Your task to perform on an android device: uninstall "Spotify: Music and Podcasts" Image 0: 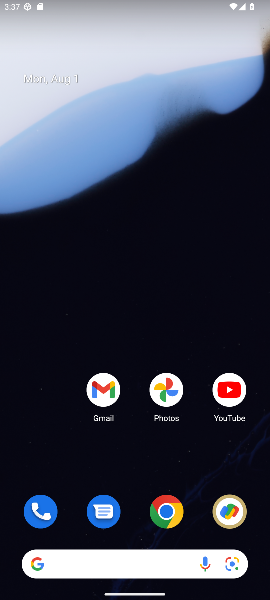
Step 0: drag from (136, 476) to (127, 133)
Your task to perform on an android device: uninstall "Spotify: Music and Podcasts" Image 1: 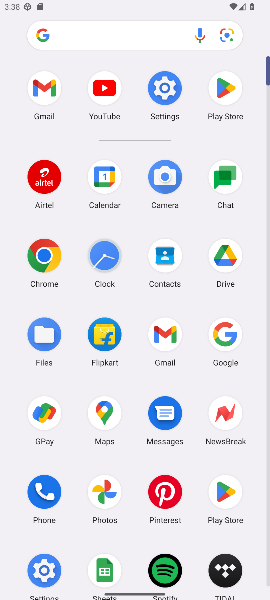
Step 1: click (227, 115)
Your task to perform on an android device: uninstall "Spotify: Music and Podcasts" Image 2: 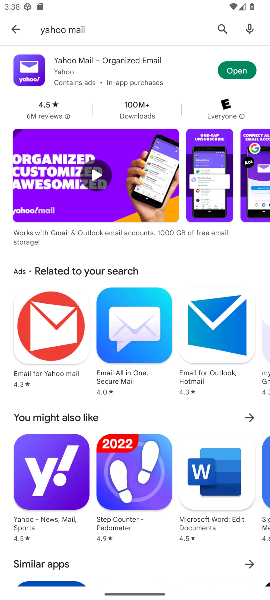
Step 2: click (15, 28)
Your task to perform on an android device: uninstall "Spotify: Music and Podcasts" Image 3: 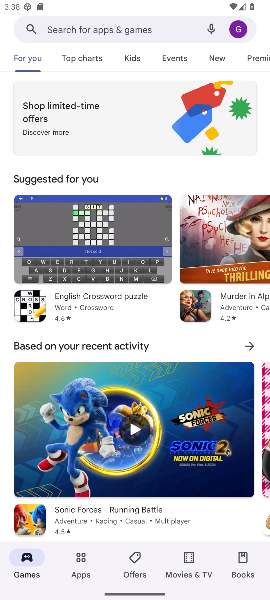
Step 3: click (123, 28)
Your task to perform on an android device: uninstall "Spotify: Music and Podcasts" Image 4: 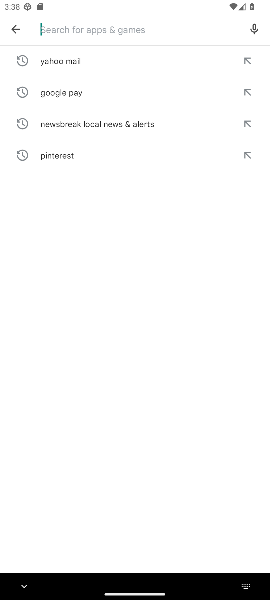
Step 4: type "Spotify"
Your task to perform on an android device: uninstall "Spotify: Music and Podcasts" Image 5: 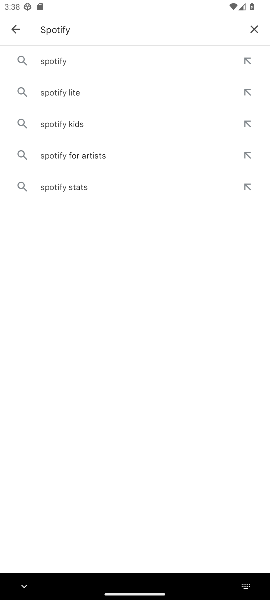
Step 5: click (58, 61)
Your task to perform on an android device: uninstall "Spotify: Music and Podcasts" Image 6: 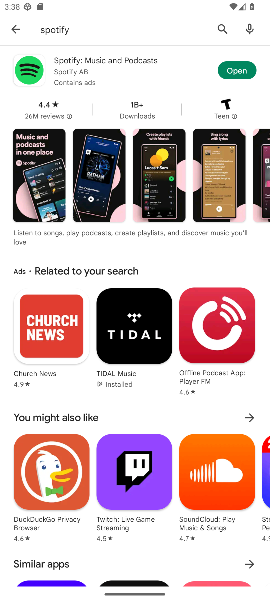
Step 6: click (244, 68)
Your task to perform on an android device: uninstall "Spotify: Music and Podcasts" Image 7: 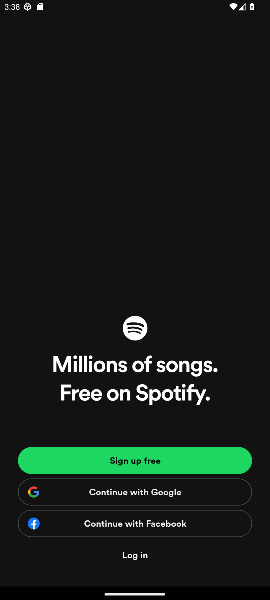
Step 7: press back button
Your task to perform on an android device: uninstall "Spotify: Music and Podcasts" Image 8: 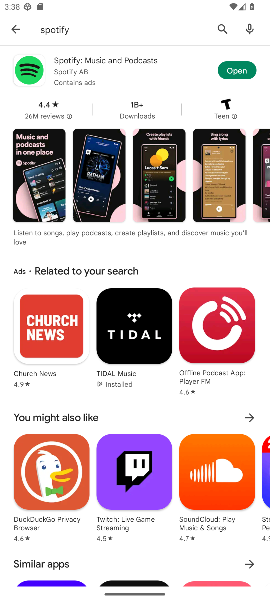
Step 8: click (83, 62)
Your task to perform on an android device: uninstall "Spotify: Music and Podcasts" Image 9: 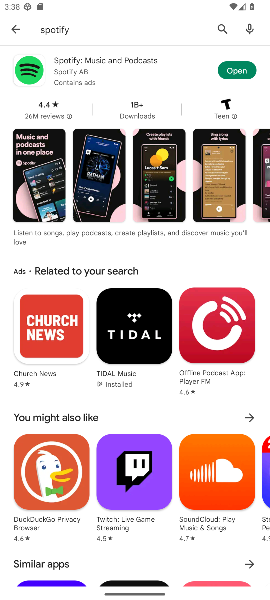
Step 9: click (83, 62)
Your task to perform on an android device: uninstall "Spotify: Music and Podcasts" Image 10: 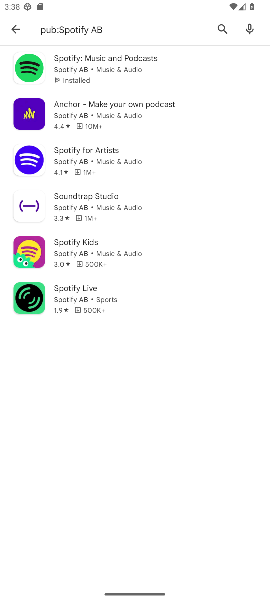
Step 10: click (71, 64)
Your task to perform on an android device: uninstall "Spotify: Music and Podcasts" Image 11: 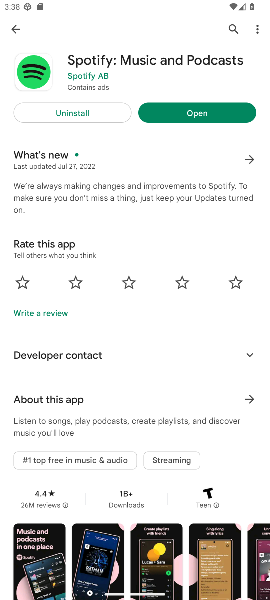
Step 11: click (70, 113)
Your task to perform on an android device: uninstall "Spotify: Music and Podcasts" Image 12: 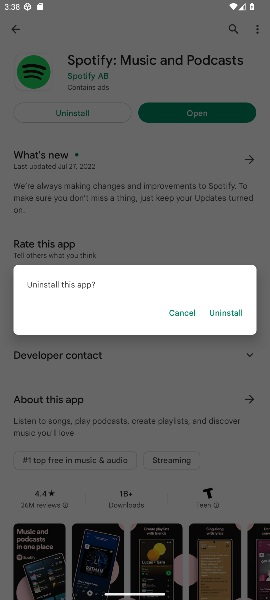
Step 12: click (216, 317)
Your task to perform on an android device: uninstall "Spotify: Music and Podcasts" Image 13: 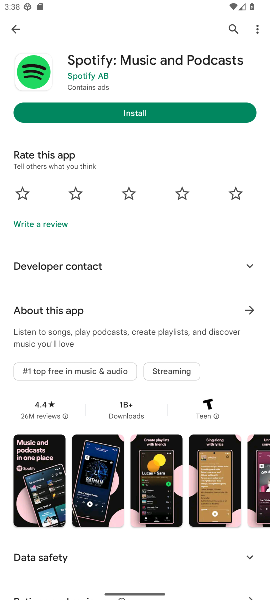
Step 13: task complete